Your task to perform on an android device: Search for sushi restaurants on Maps Image 0: 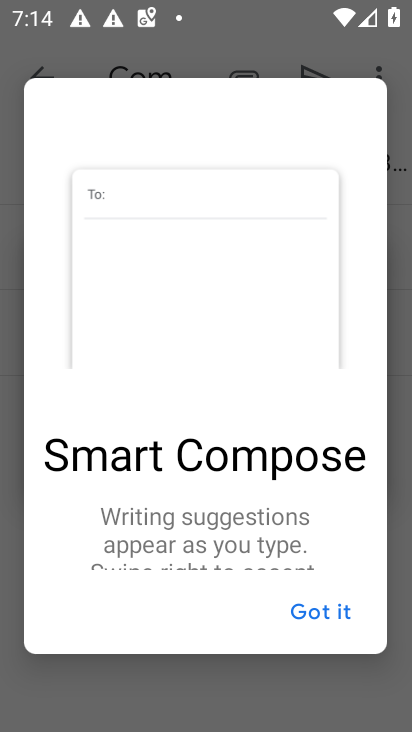
Step 0: press home button
Your task to perform on an android device: Search for sushi restaurants on Maps Image 1: 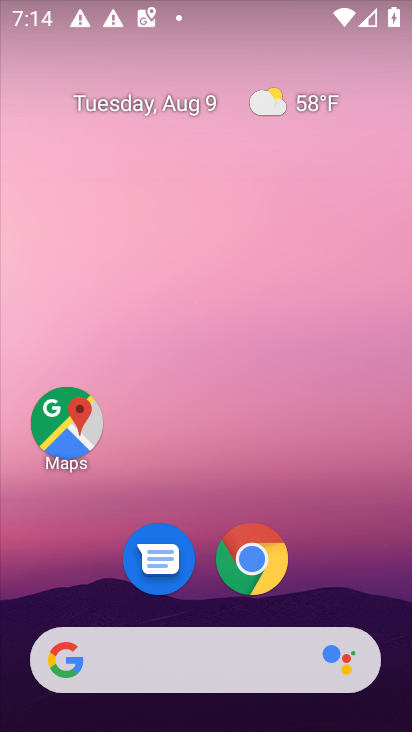
Step 1: click (67, 430)
Your task to perform on an android device: Search for sushi restaurants on Maps Image 2: 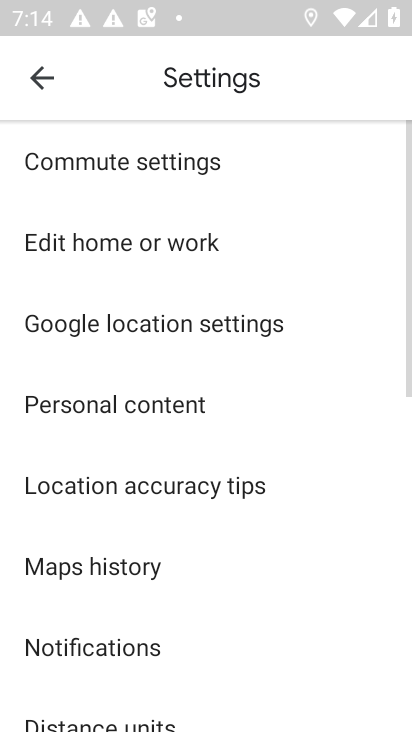
Step 2: click (43, 78)
Your task to perform on an android device: Search for sushi restaurants on Maps Image 3: 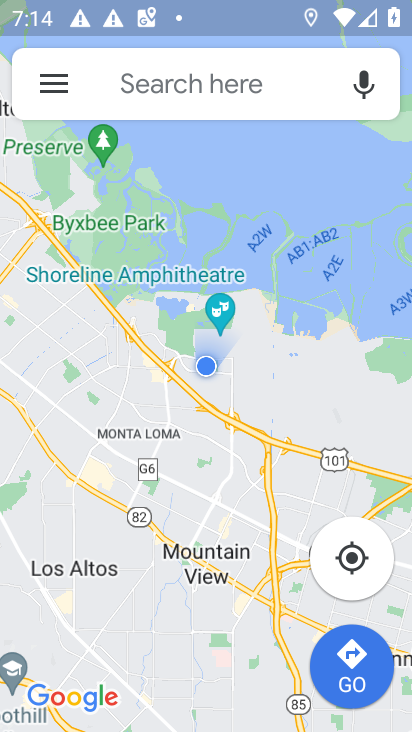
Step 3: click (127, 93)
Your task to perform on an android device: Search for sushi restaurants on Maps Image 4: 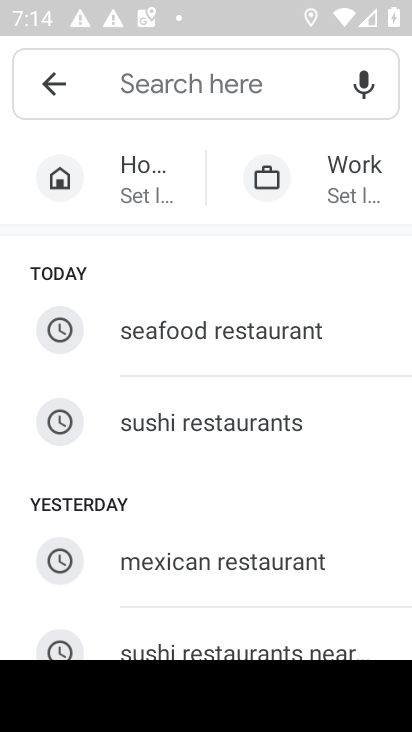
Step 4: type "sushi restaurants"
Your task to perform on an android device: Search for sushi restaurants on Maps Image 5: 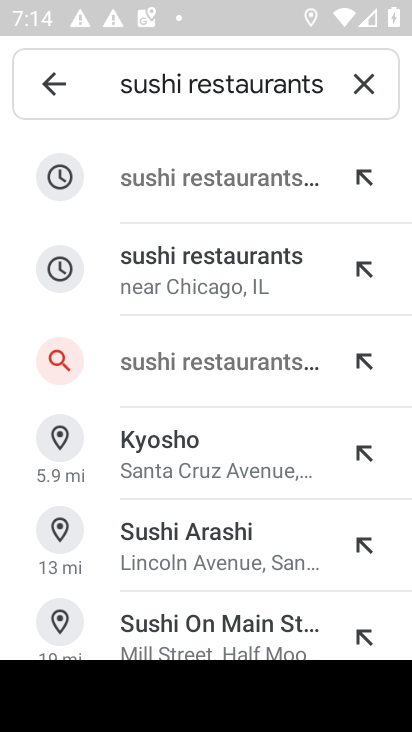
Step 5: click (217, 175)
Your task to perform on an android device: Search for sushi restaurants on Maps Image 6: 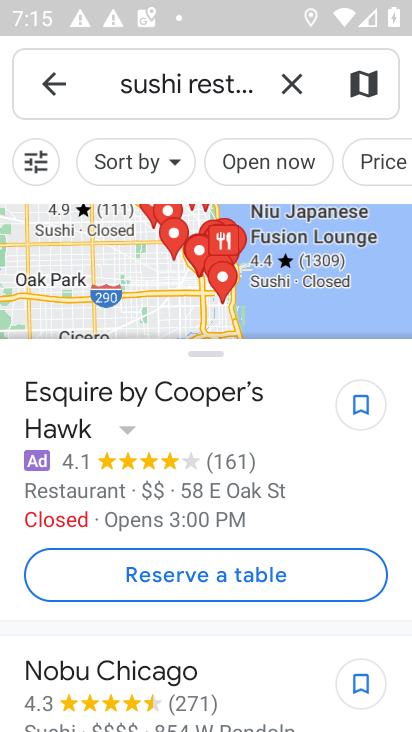
Step 6: task complete